Your task to perform on an android device: Open ESPN.com Image 0: 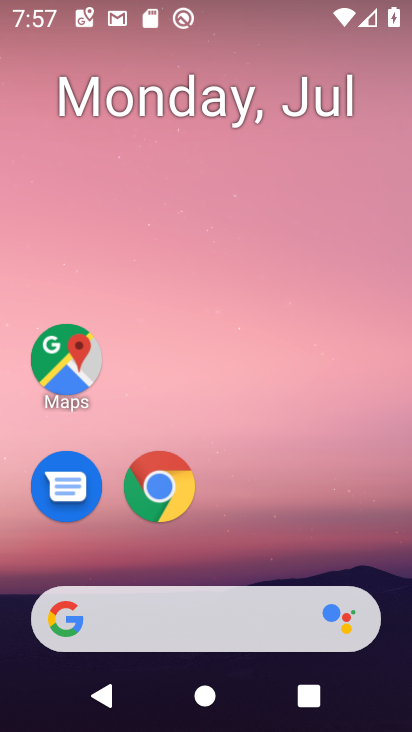
Step 0: drag from (347, 552) to (334, 116)
Your task to perform on an android device: Open ESPN.com Image 1: 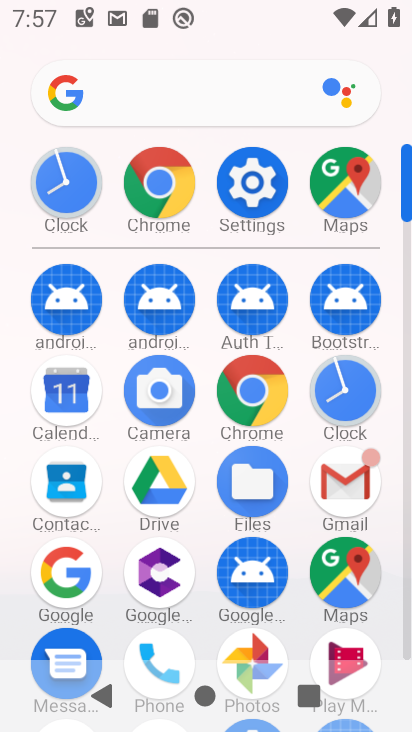
Step 1: click (254, 392)
Your task to perform on an android device: Open ESPN.com Image 2: 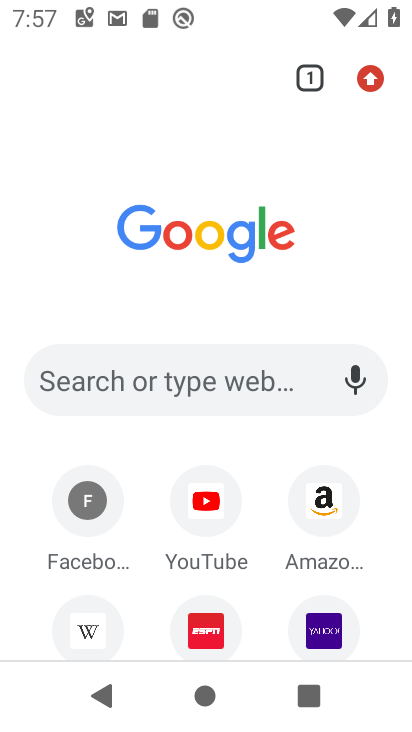
Step 2: click (254, 392)
Your task to perform on an android device: Open ESPN.com Image 3: 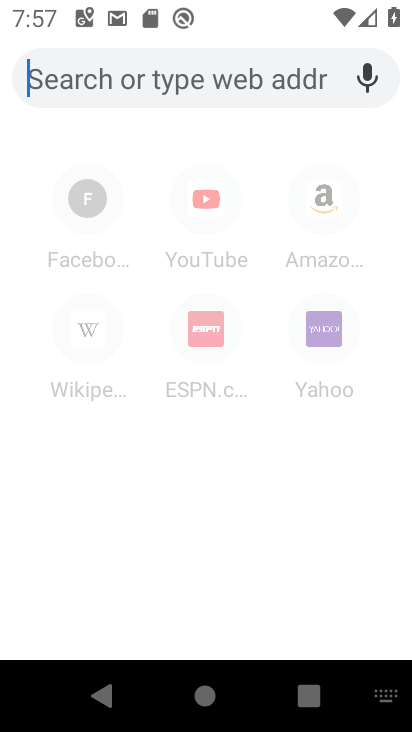
Step 3: type "espn.com"
Your task to perform on an android device: Open ESPN.com Image 4: 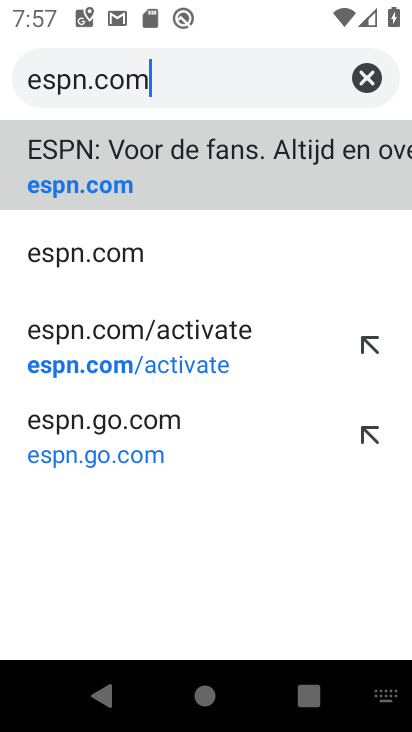
Step 4: click (205, 259)
Your task to perform on an android device: Open ESPN.com Image 5: 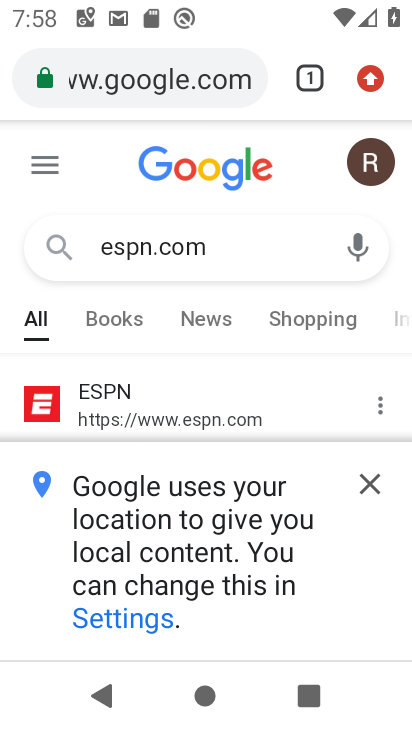
Step 5: task complete